Your task to perform on an android device: When is my next appointment? Image 0: 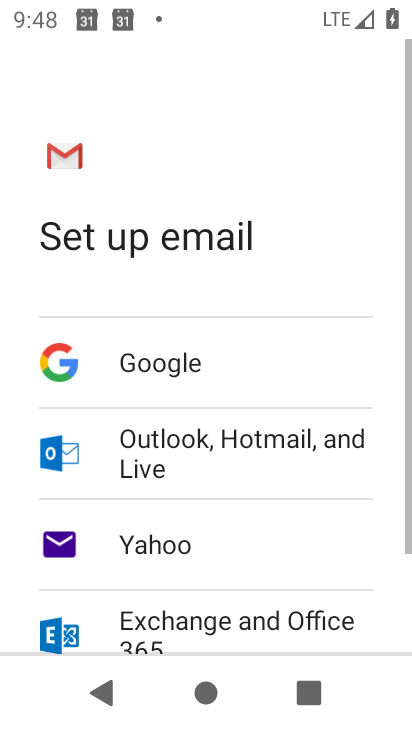
Step 0: press home button
Your task to perform on an android device: When is my next appointment? Image 1: 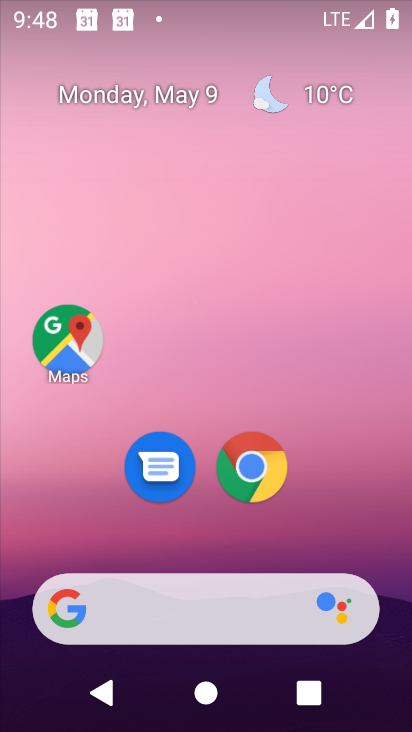
Step 1: drag from (393, 657) to (367, 9)
Your task to perform on an android device: When is my next appointment? Image 2: 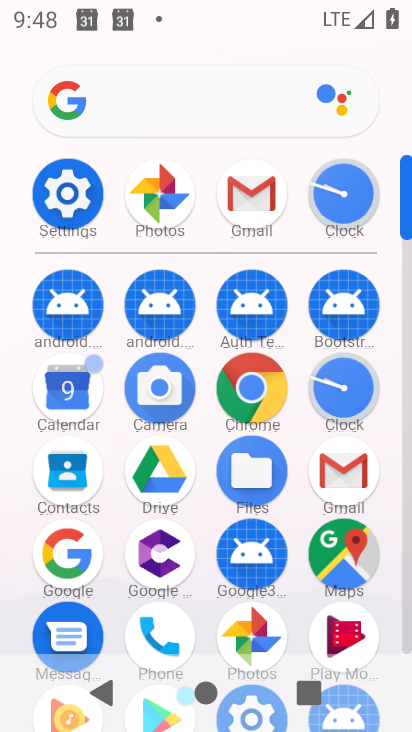
Step 2: click (57, 409)
Your task to perform on an android device: When is my next appointment? Image 3: 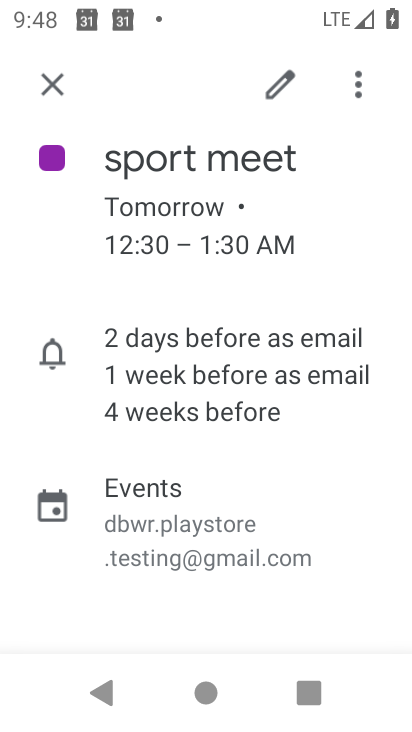
Step 3: click (43, 92)
Your task to perform on an android device: When is my next appointment? Image 4: 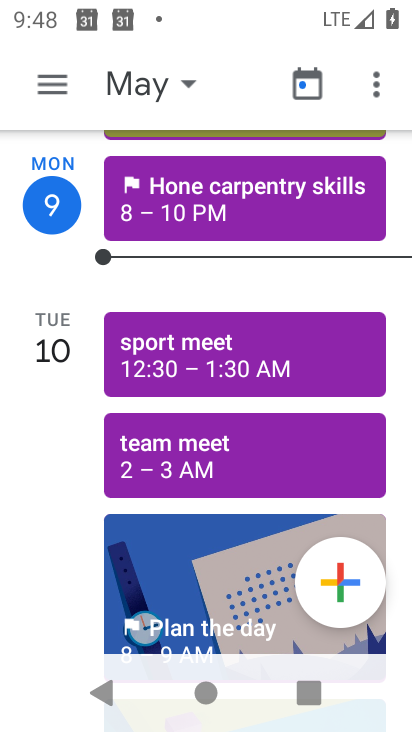
Step 4: click (225, 367)
Your task to perform on an android device: When is my next appointment? Image 5: 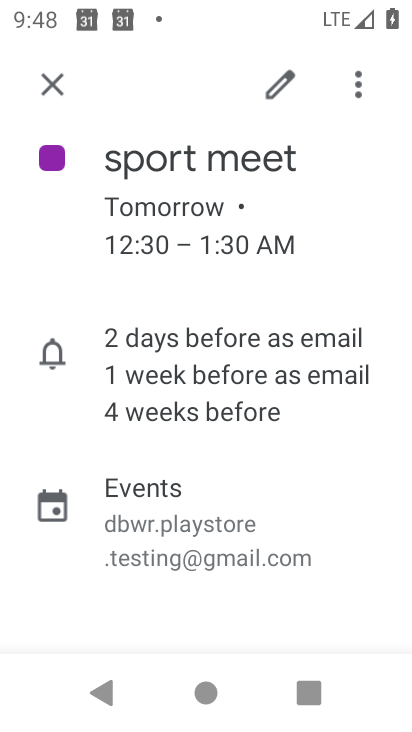
Step 5: task complete